Your task to perform on an android device: Open the downloads Image 0: 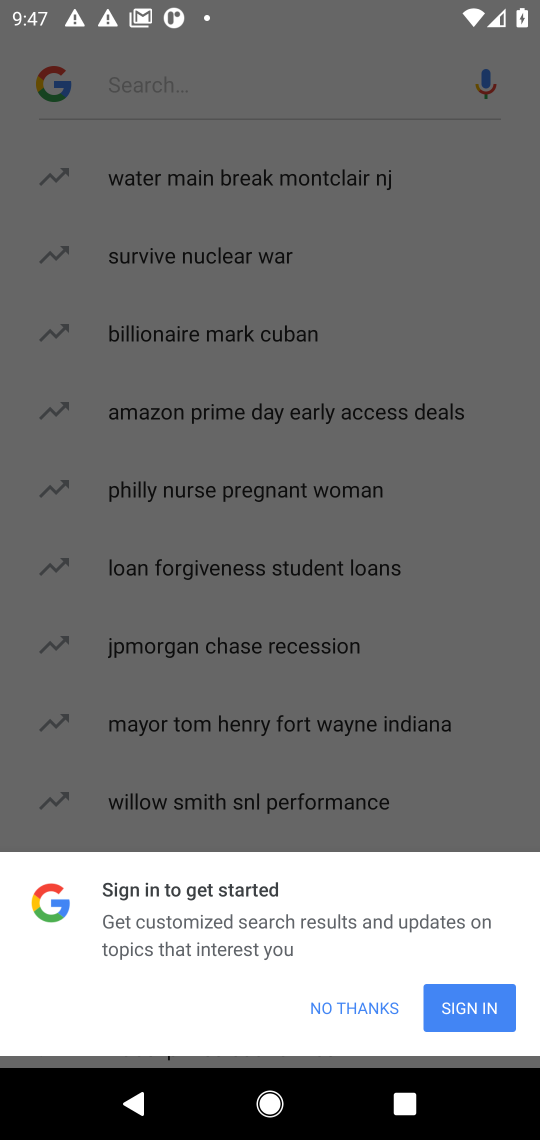
Step 0: press home button
Your task to perform on an android device: Open the downloads Image 1: 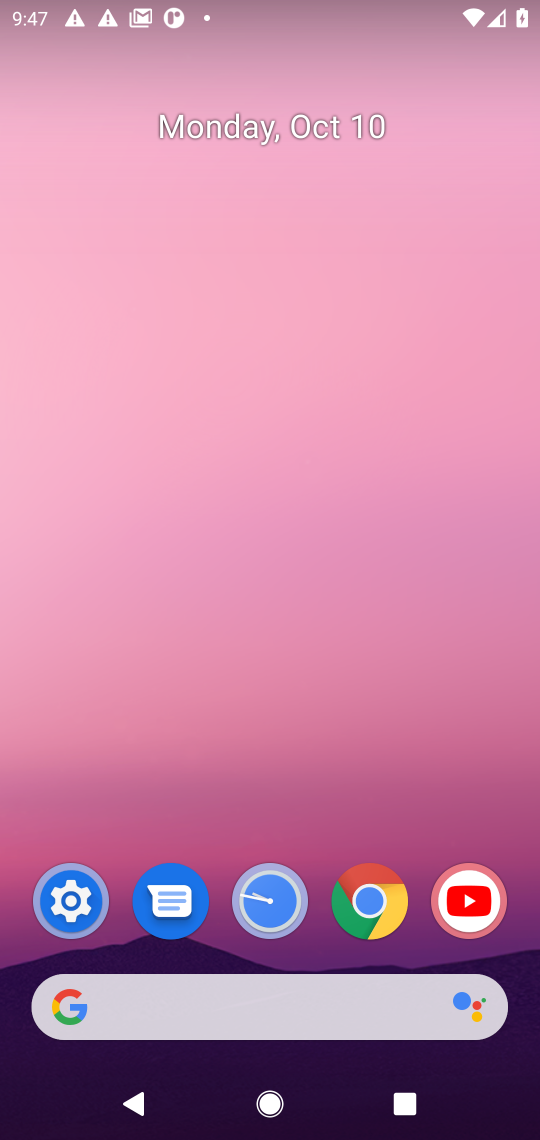
Step 1: click (287, 1019)
Your task to perform on an android device: Open the downloads Image 2: 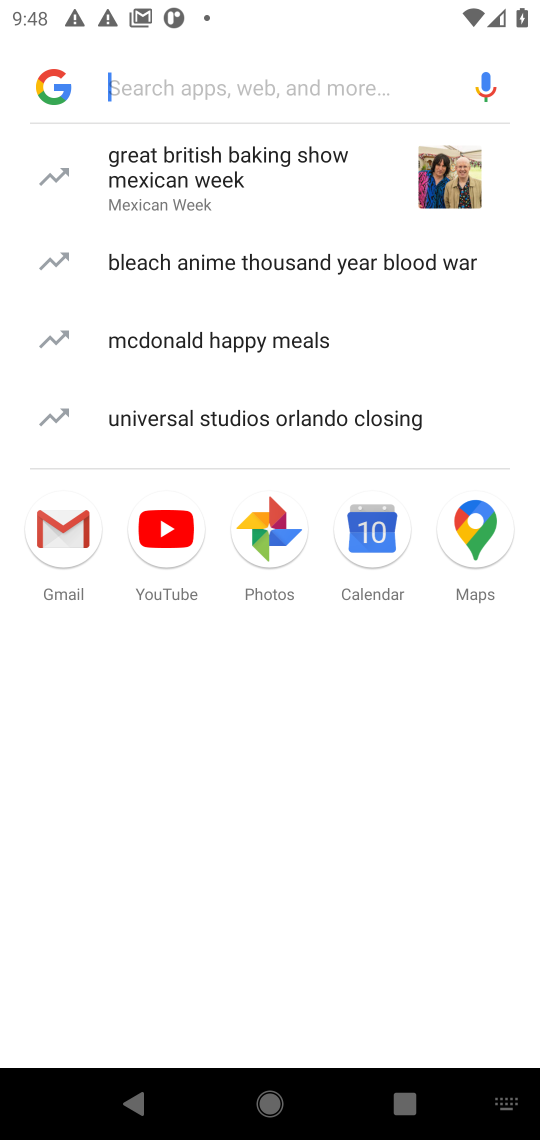
Step 2: type "Open the downloads"
Your task to perform on an android device: Open the downloads Image 3: 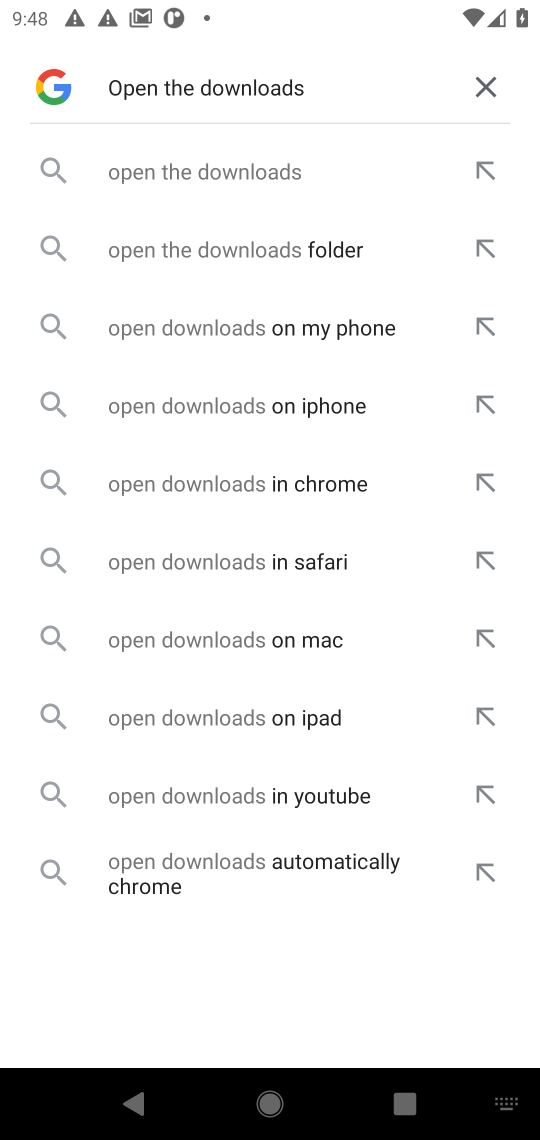
Step 3: press enter
Your task to perform on an android device: Open the downloads Image 4: 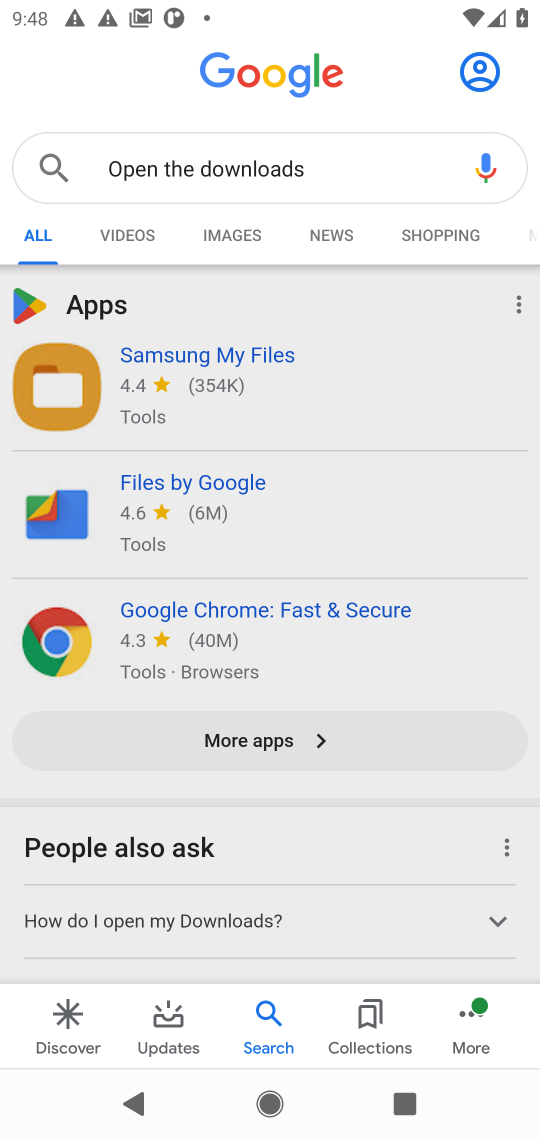
Step 4: task complete